Your task to perform on an android device: turn pop-ups on in chrome Image 0: 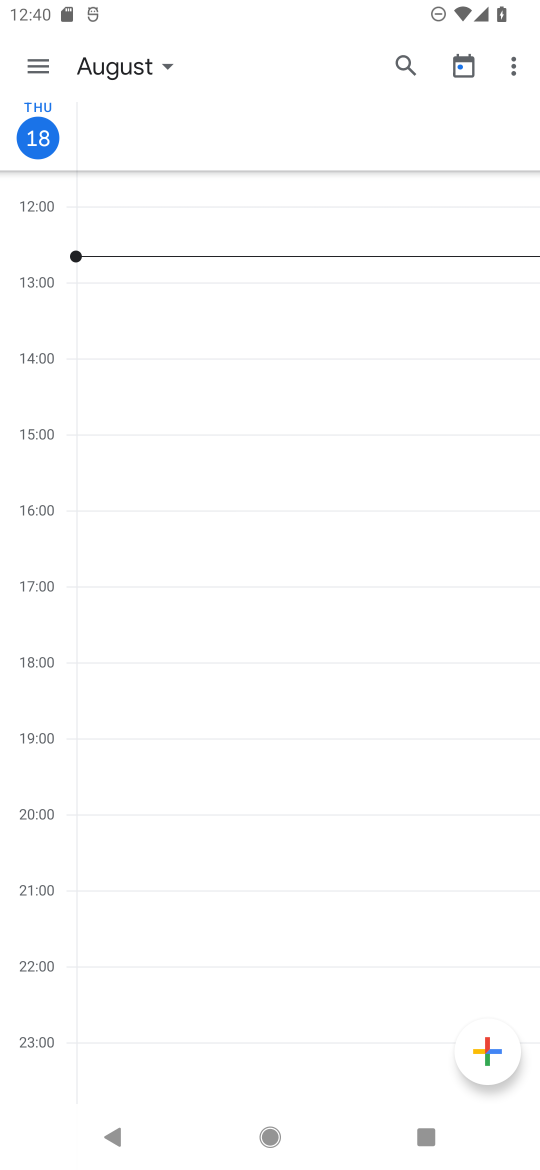
Step 0: press home button
Your task to perform on an android device: turn pop-ups on in chrome Image 1: 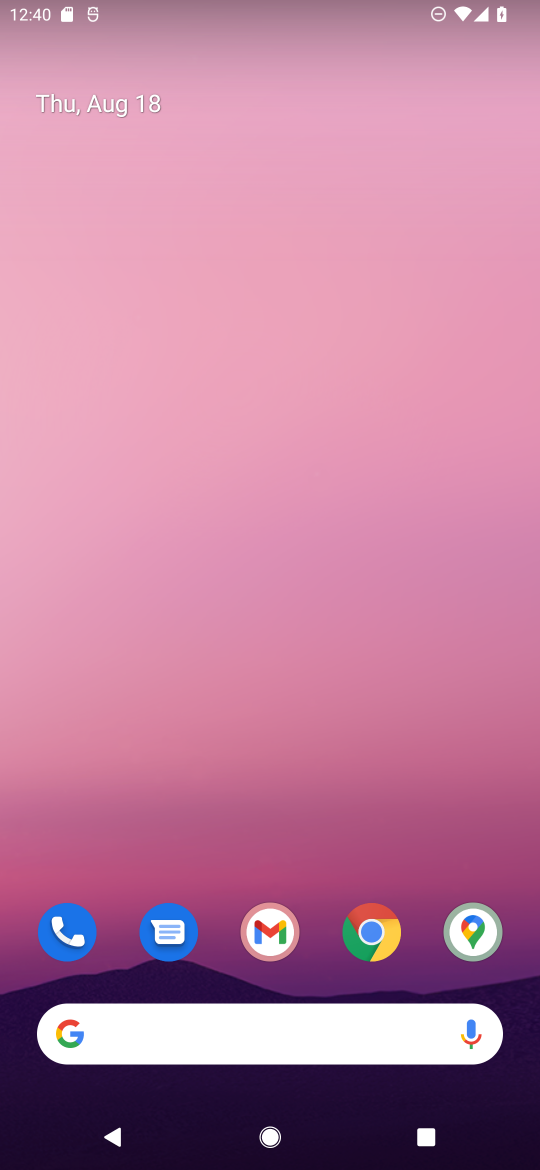
Step 1: click (370, 934)
Your task to perform on an android device: turn pop-ups on in chrome Image 2: 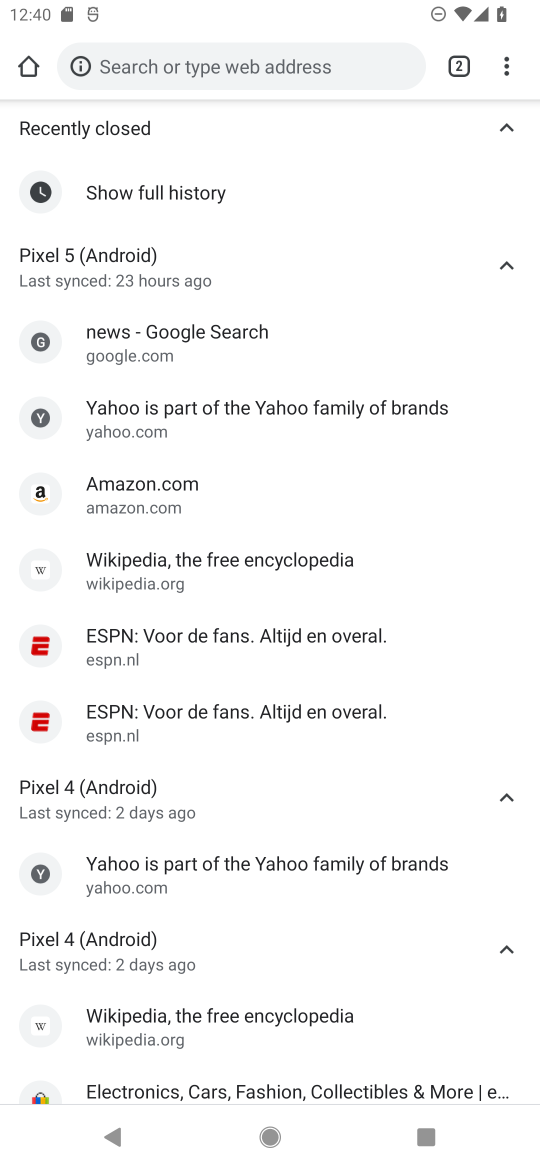
Step 2: click (506, 58)
Your task to perform on an android device: turn pop-ups on in chrome Image 3: 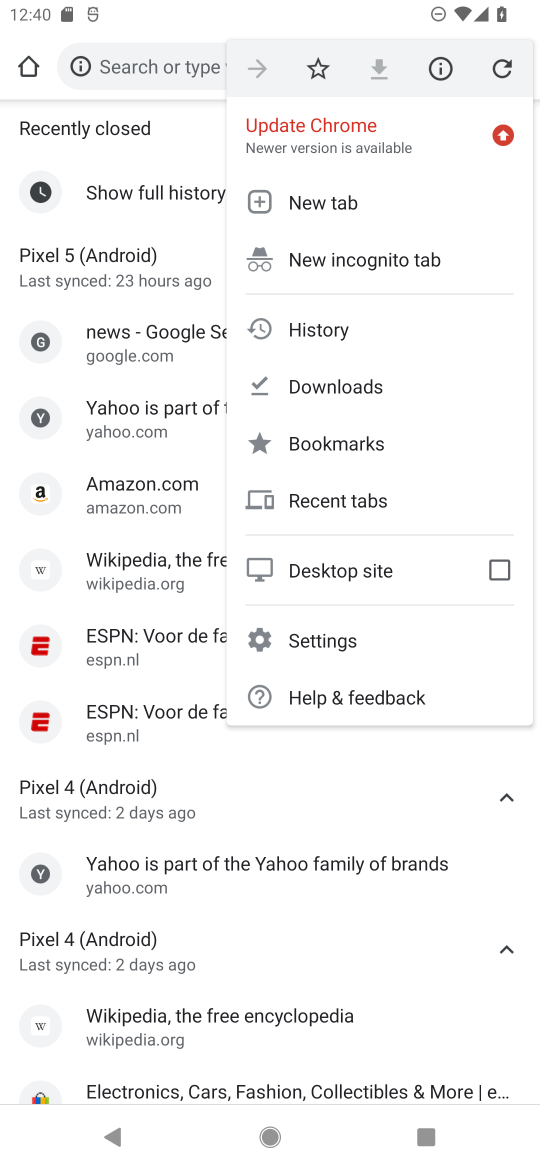
Step 3: click (320, 639)
Your task to perform on an android device: turn pop-ups on in chrome Image 4: 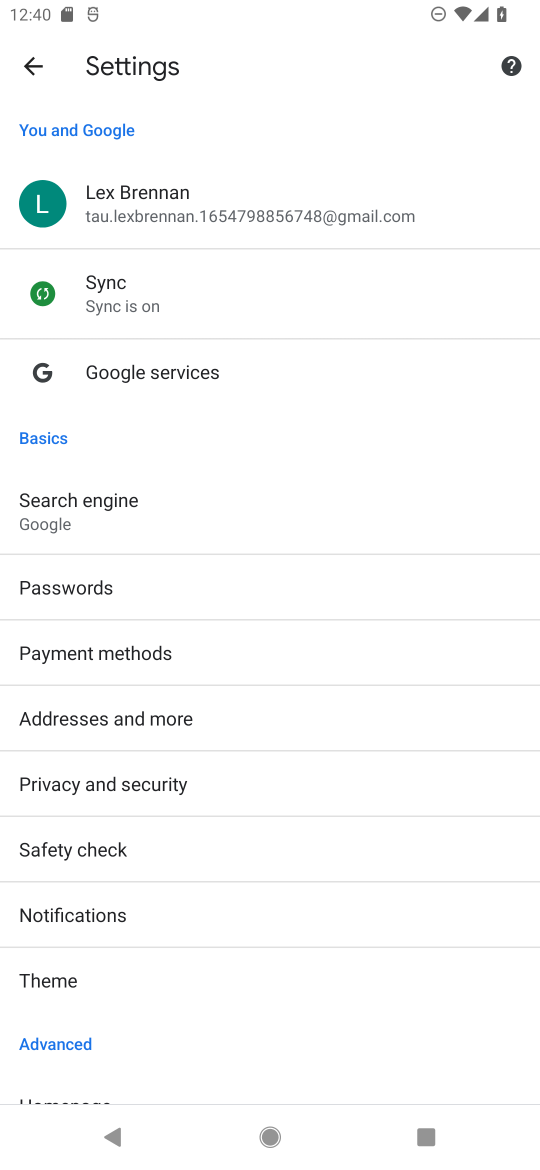
Step 4: drag from (229, 952) to (195, 570)
Your task to perform on an android device: turn pop-ups on in chrome Image 5: 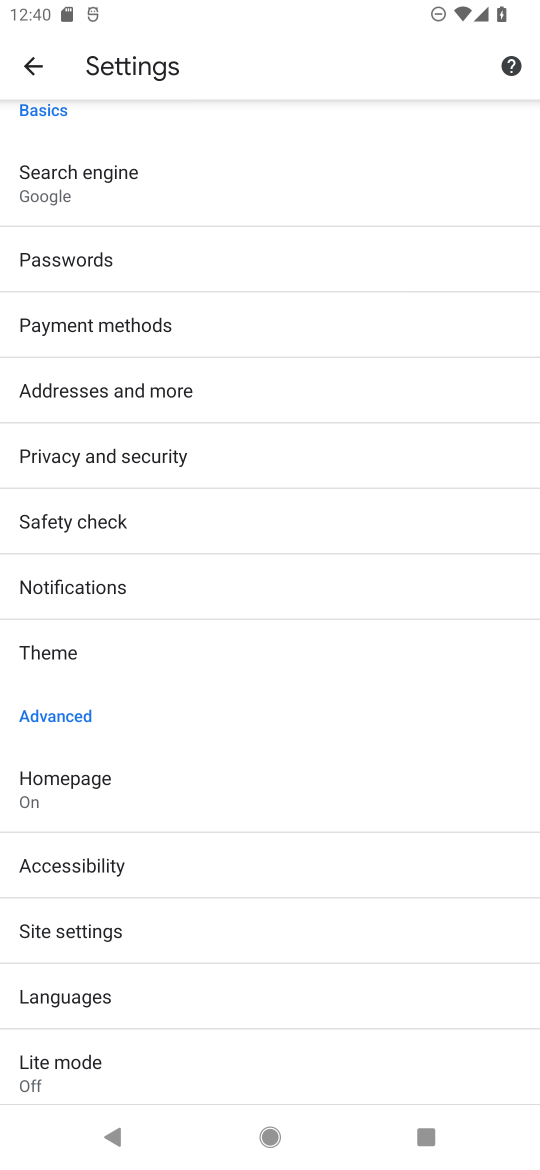
Step 5: drag from (248, 1018) to (241, 494)
Your task to perform on an android device: turn pop-ups on in chrome Image 6: 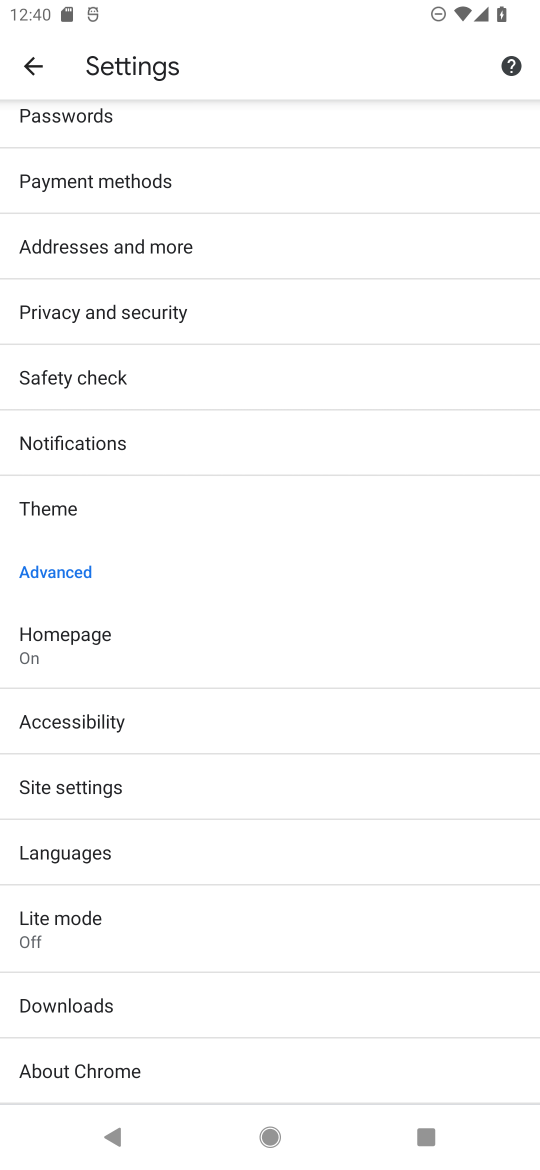
Step 6: click (73, 786)
Your task to perform on an android device: turn pop-ups on in chrome Image 7: 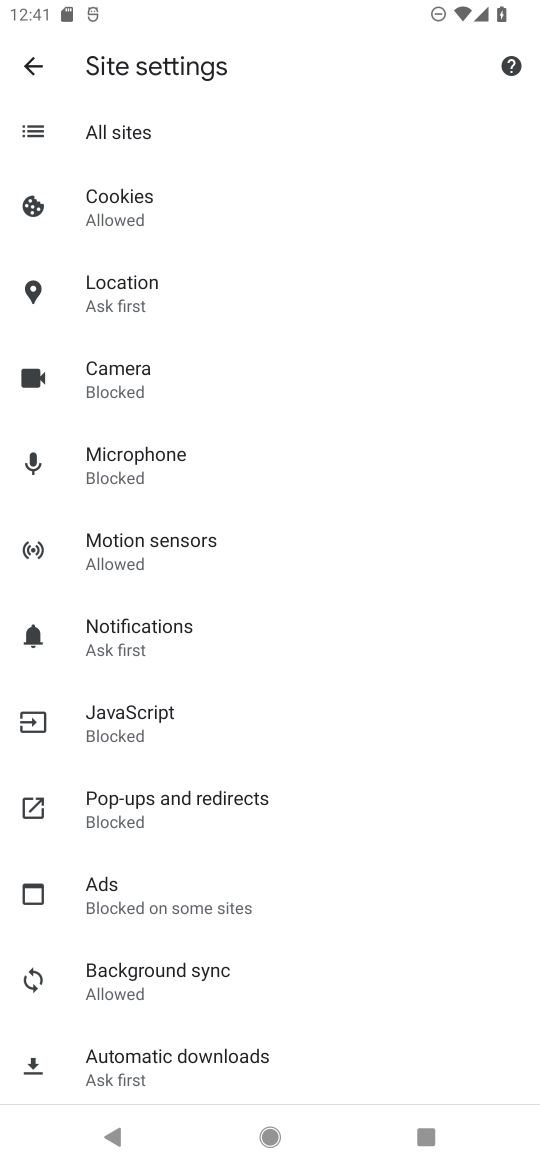
Step 7: click (158, 793)
Your task to perform on an android device: turn pop-ups on in chrome Image 8: 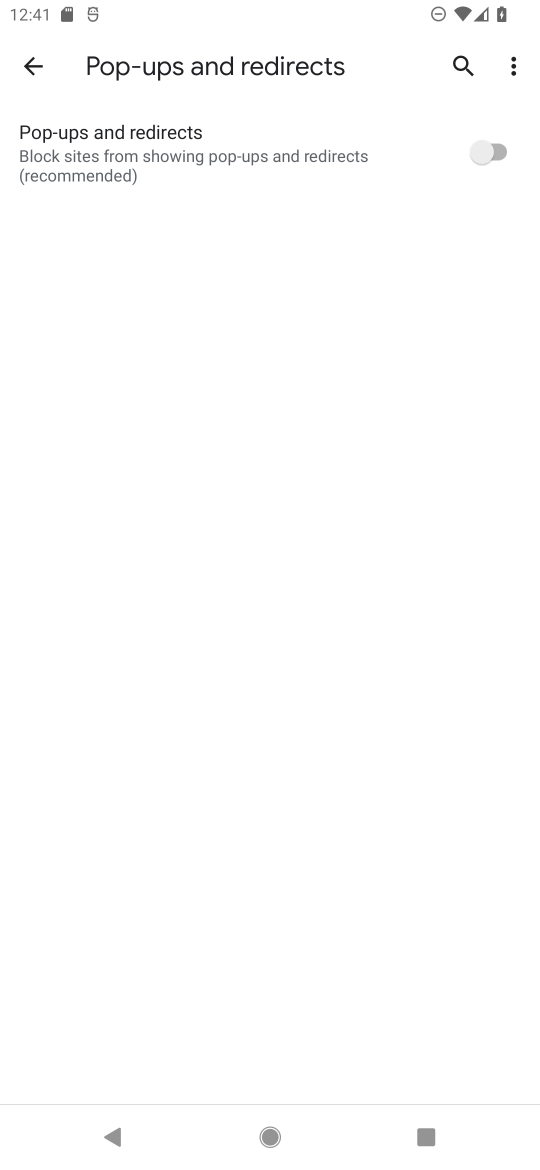
Step 8: click (481, 149)
Your task to perform on an android device: turn pop-ups on in chrome Image 9: 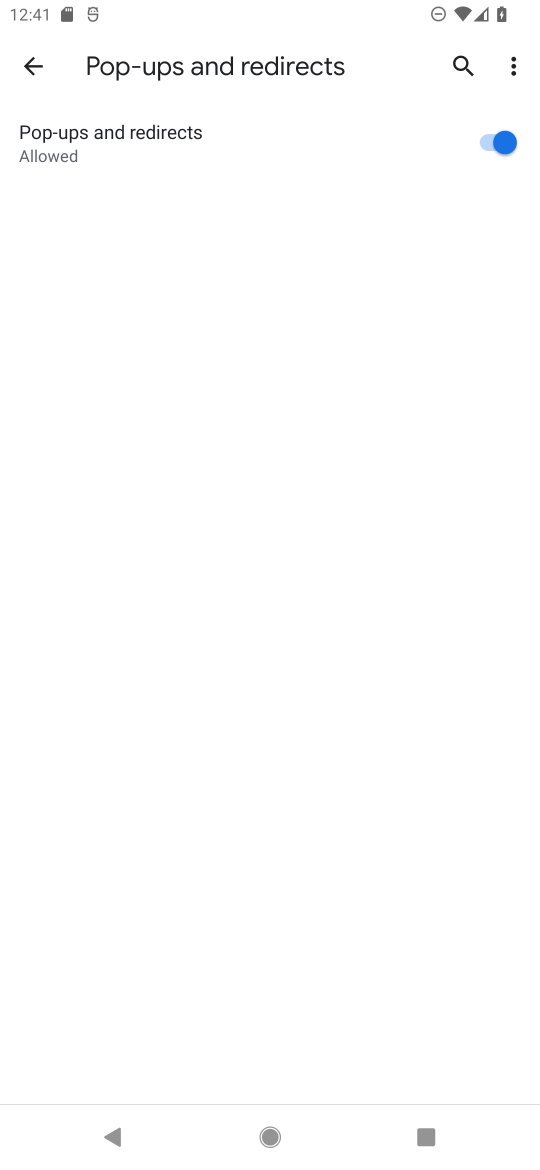
Step 9: task complete